Your task to perform on an android device: toggle translation in the chrome app Image 0: 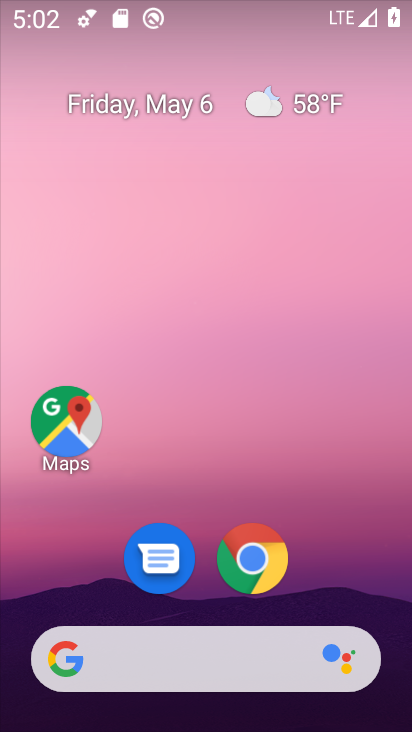
Step 0: click (237, 0)
Your task to perform on an android device: toggle translation in the chrome app Image 1: 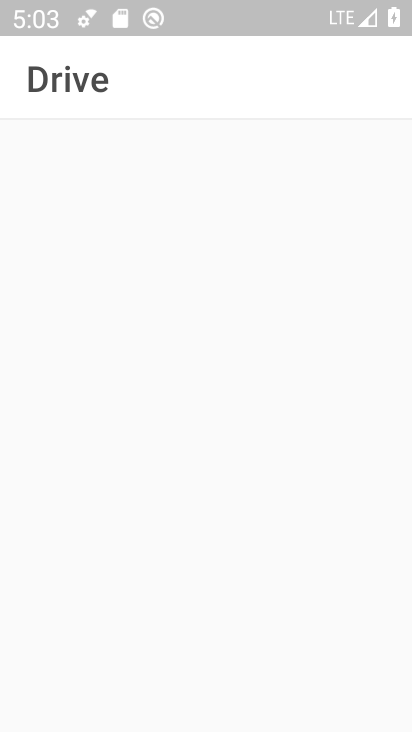
Step 1: press home button
Your task to perform on an android device: toggle translation in the chrome app Image 2: 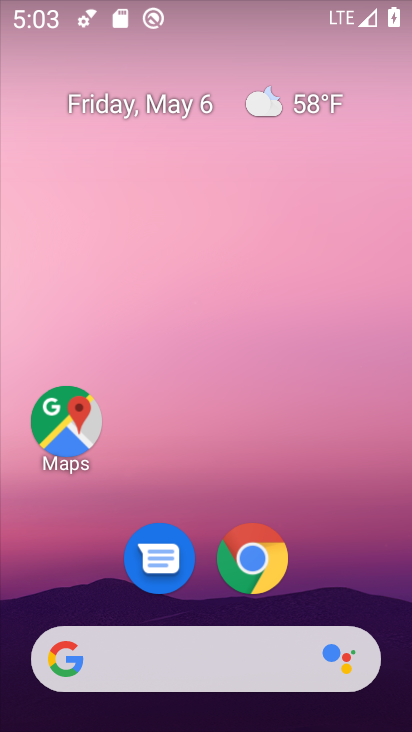
Step 2: drag from (282, 598) to (331, 1)
Your task to perform on an android device: toggle translation in the chrome app Image 3: 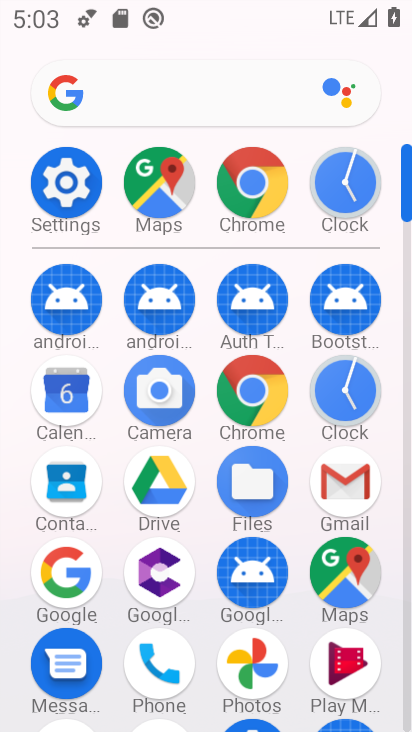
Step 3: click (268, 389)
Your task to perform on an android device: toggle translation in the chrome app Image 4: 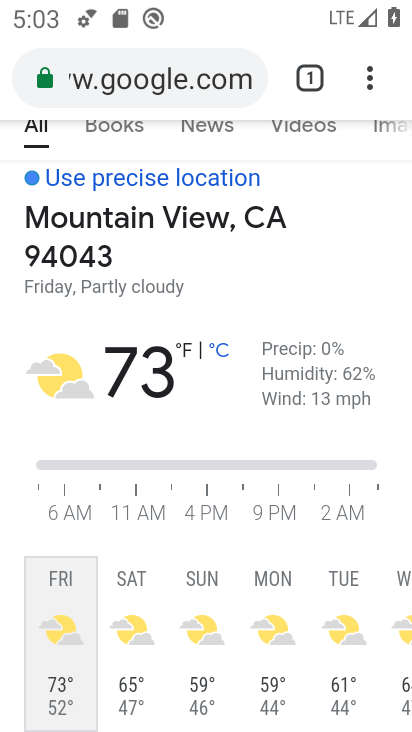
Step 4: drag from (368, 75) to (167, 629)
Your task to perform on an android device: toggle translation in the chrome app Image 5: 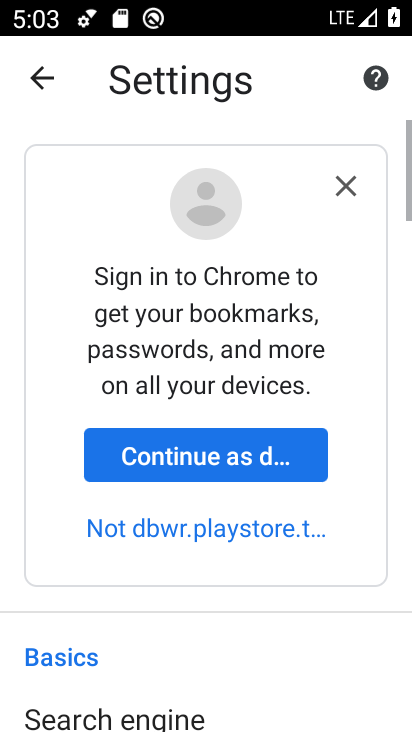
Step 5: drag from (231, 655) to (226, 70)
Your task to perform on an android device: toggle translation in the chrome app Image 6: 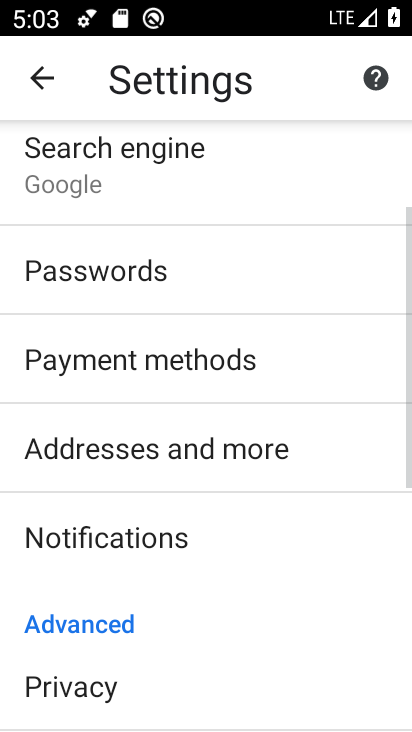
Step 6: drag from (218, 695) to (229, 251)
Your task to perform on an android device: toggle translation in the chrome app Image 7: 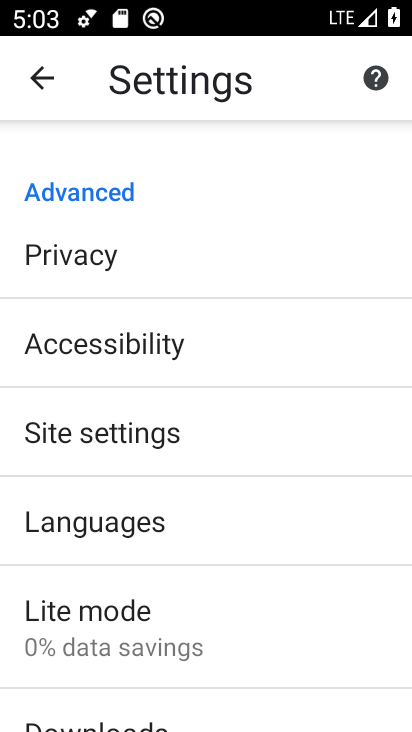
Step 7: click (178, 547)
Your task to perform on an android device: toggle translation in the chrome app Image 8: 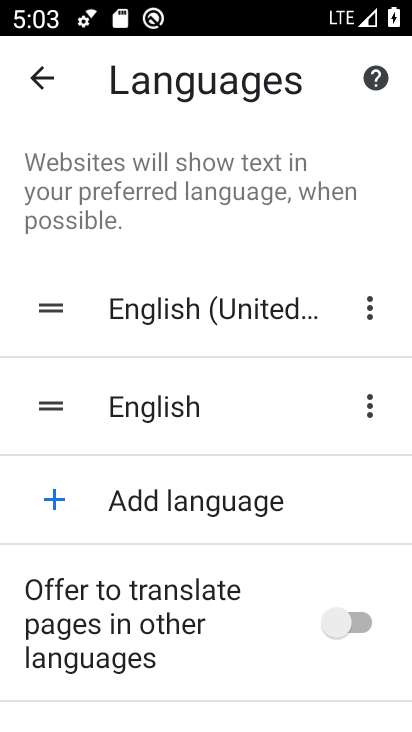
Step 8: click (351, 621)
Your task to perform on an android device: toggle translation in the chrome app Image 9: 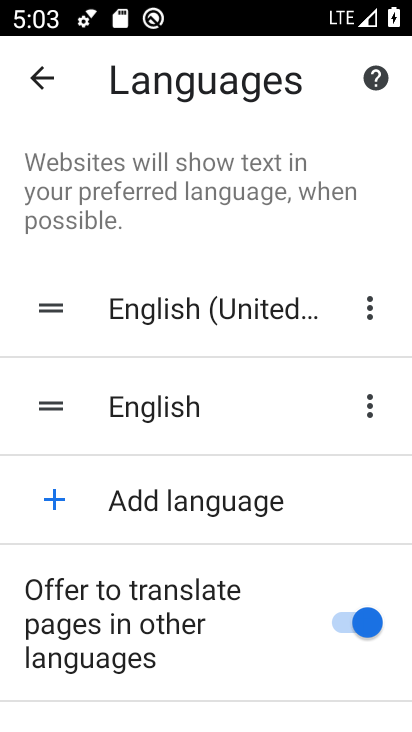
Step 9: task complete